Your task to perform on an android device: toggle notifications settings in the gmail app Image 0: 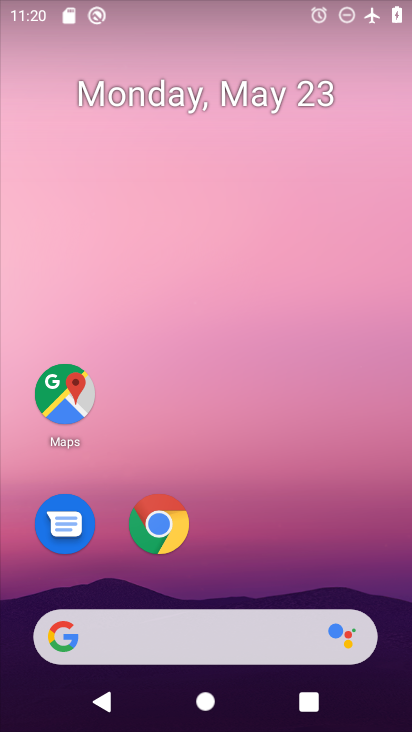
Step 0: drag from (207, 578) to (238, 232)
Your task to perform on an android device: toggle notifications settings in the gmail app Image 1: 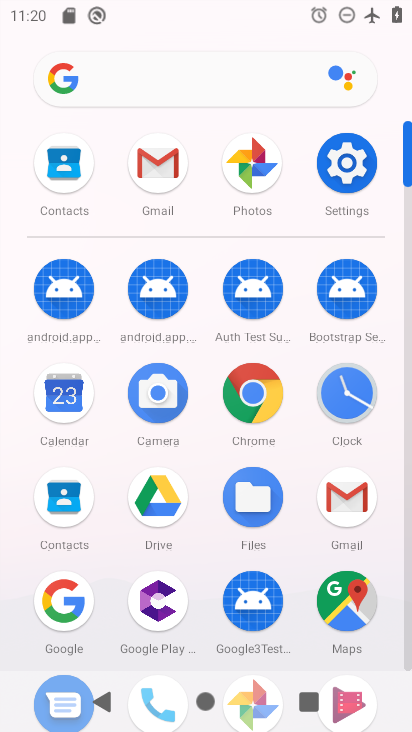
Step 1: click (168, 166)
Your task to perform on an android device: toggle notifications settings in the gmail app Image 2: 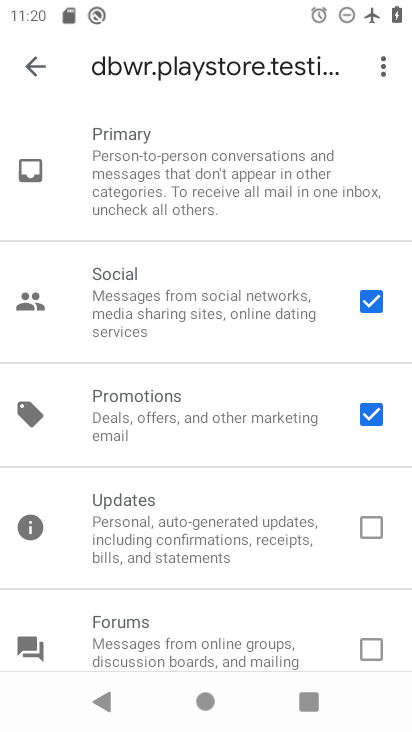
Step 2: click (18, 58)
Your task to perform on an android device: toggle notifications settings in the gmail app Image 3: 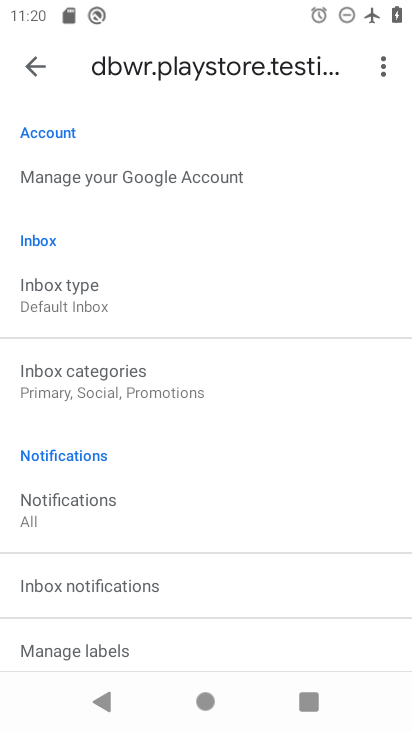
Step 3: drag from (243, 552) to (233, 291)
Your task to perform on an android device: toggle notifications settings in the gmail app Image 4: 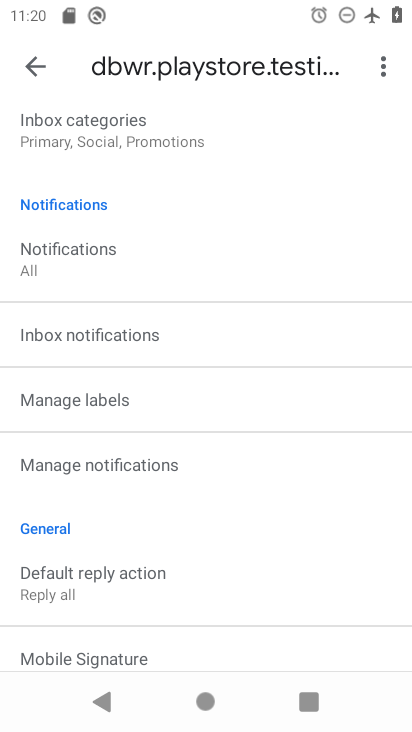
Step 4: click (170, 469)
Your task to perform on an android device: toggle notifications settings in the gmail app Image 5: 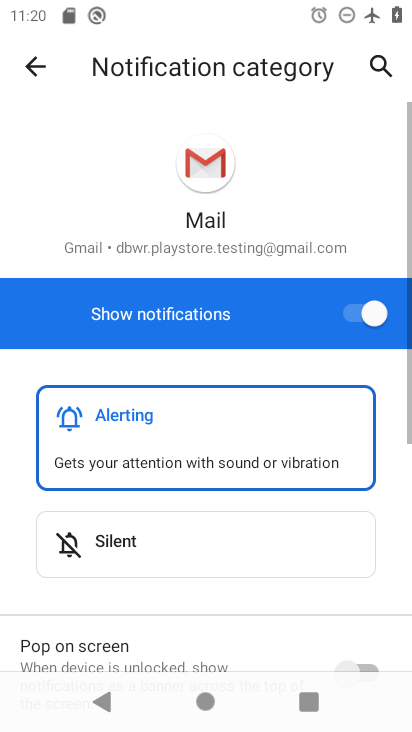
Step 5: drag from (225, 577) to (242, 390)
Your task to perform on an android device: toggle notifications settings in the gmail app Image 6: 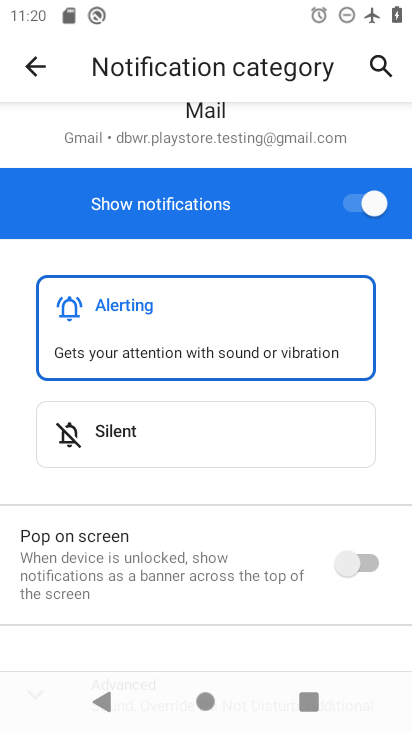
Step 6: click (344, 205)
Your task to perform on an android device: toggle notifications settings in the gmail app Image 7: 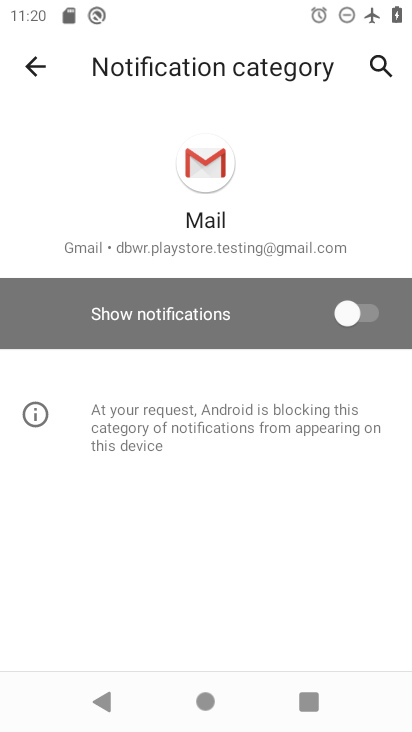
Step 7: task complete